Your task to perform on an android device: turn off javascript in the chrome app Image 0: 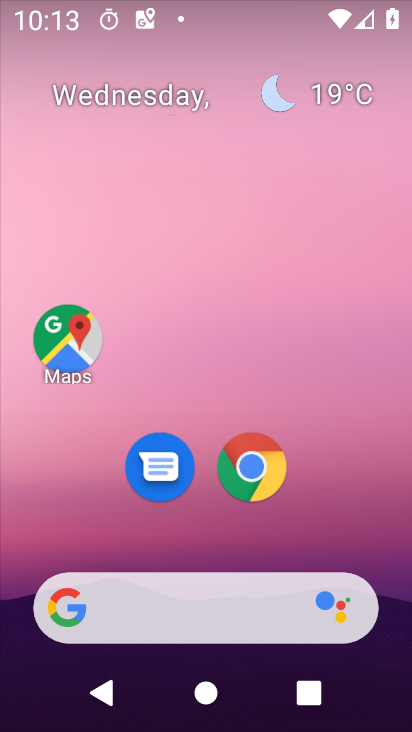
Step 0: click (260, 475)
Your task to perform on an android device: turn off javascript in the chrome app Image 1: 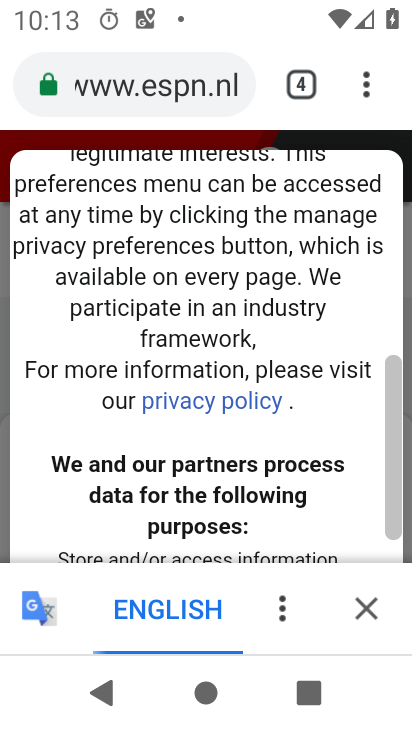
Step 1: click (368, 88)
Your task to perform on an android device: turn off javascript in the chrome app Image 2: 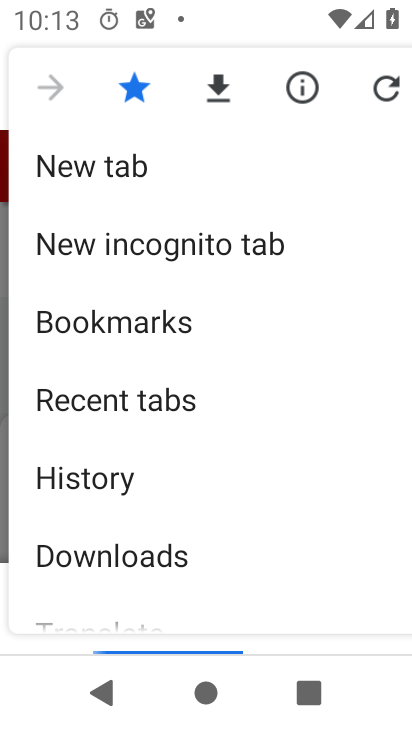
Step 2: drag from (210, 488) to (189, 30)
Your task to perform on an android device: turn off javascript in the chrome app Image 3: 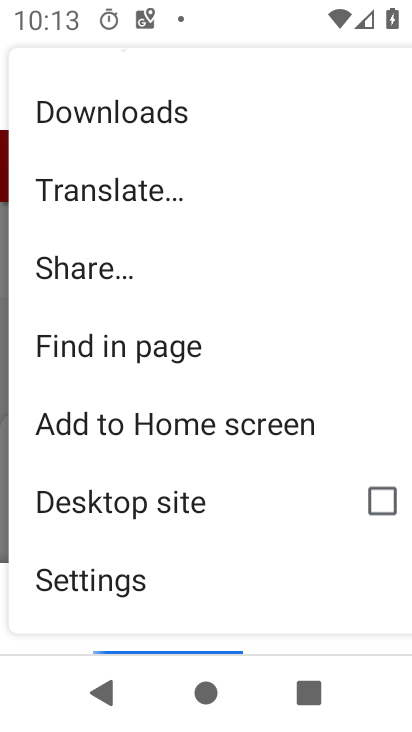
Step 3: click (140, 592)
Your task to perform on an android device: turn off javascript in the chrome app Image 4: 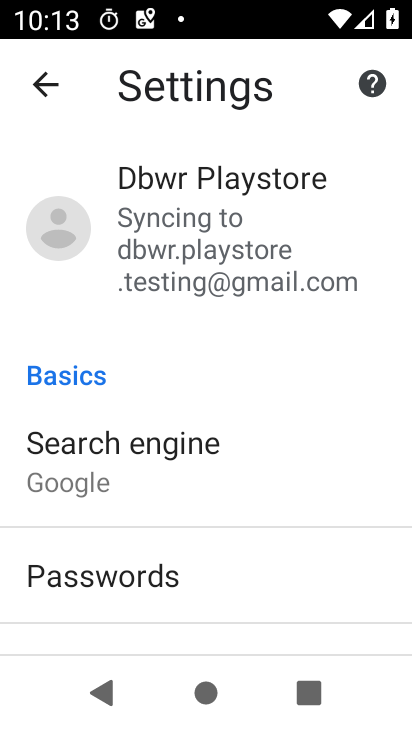
Step 4: drag from (224, 538) to (207, 167)
Your task to perform on an android device: turn off javascript in the chrome app Image 5: 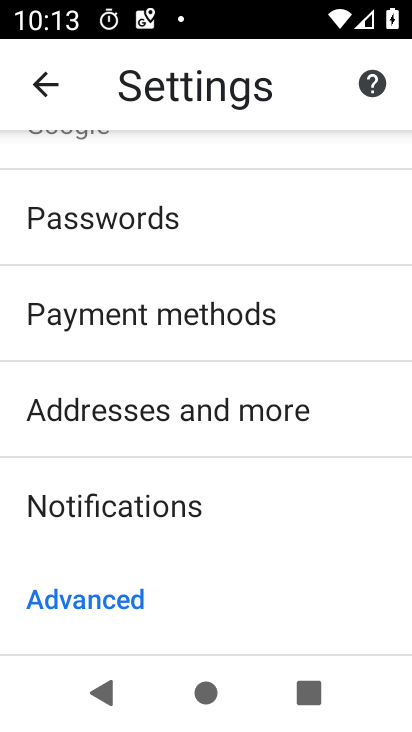
Step 5: drag from (198, 484) to (182, 170)
Your task to perform on an android device: turn off javascript in the chrome app Image 6: 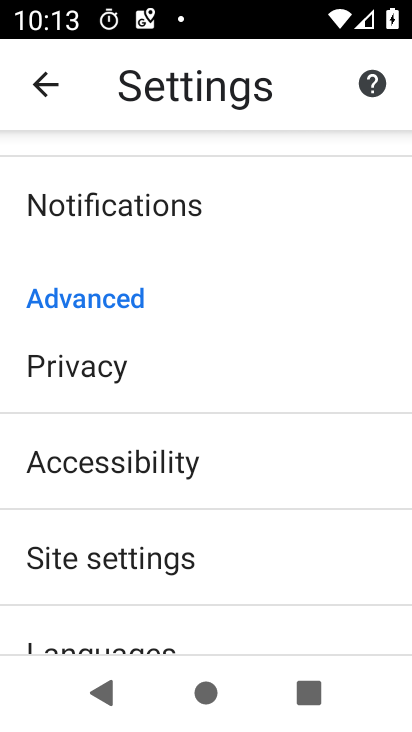
Step 6: click (170, 566)
Your task to perform on an android device: turn off javascript in the chrome app Image 7: 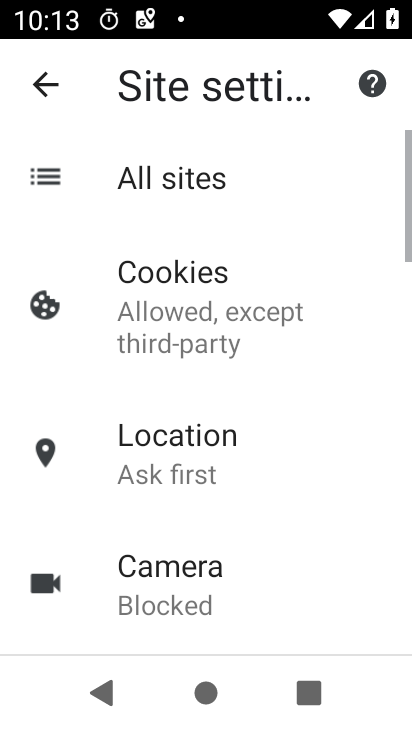
Step 7: drag from (265, 530) to (229, 153)
Your task to perform on an android device: turn off javascript in the chrome app Image 8: 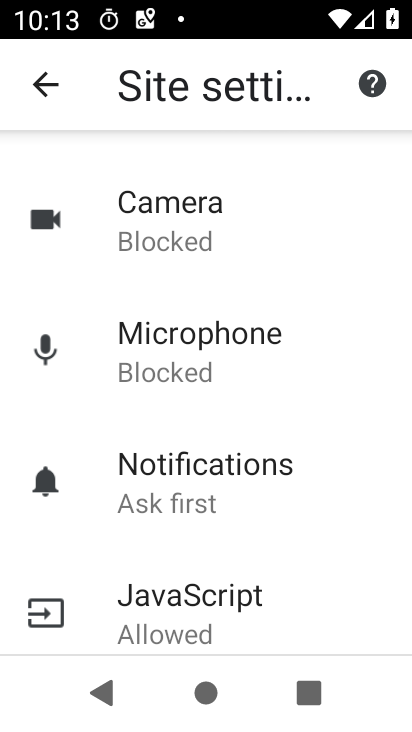
Step 8: click (231, 617)
Your task to perform on an android device: turn off javascript in the chrome app Image 9: 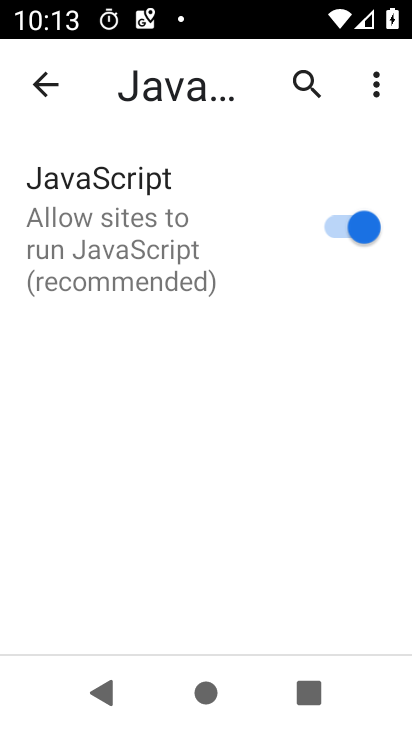
Step 9: click (351, 211)
Your task to perform on an android device: turn off javascript in the chrome app Image 10: 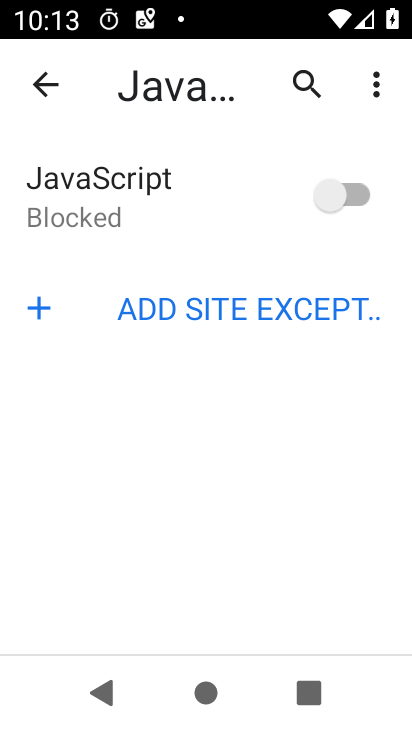
Step 10: task complete